Your task to perform on an android device: Check the weather Image 0: 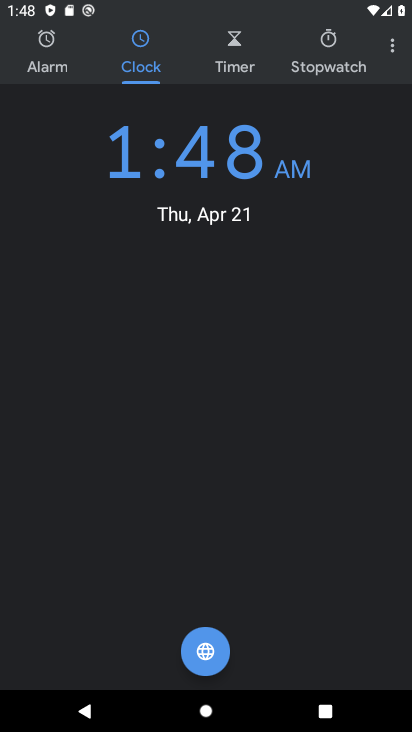
Step 0: press home button
Your task to perform on an android device: Check the weather Image 1: 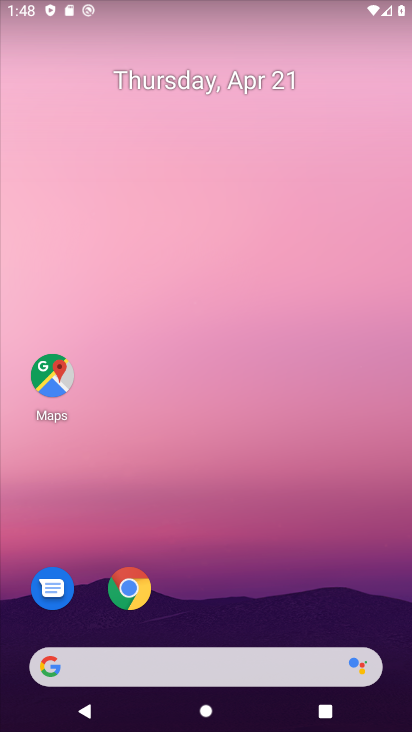
Step 1: drag from (228, 581) to (330, 54)
Your task to perform on an android device: Check the weather Image 2: 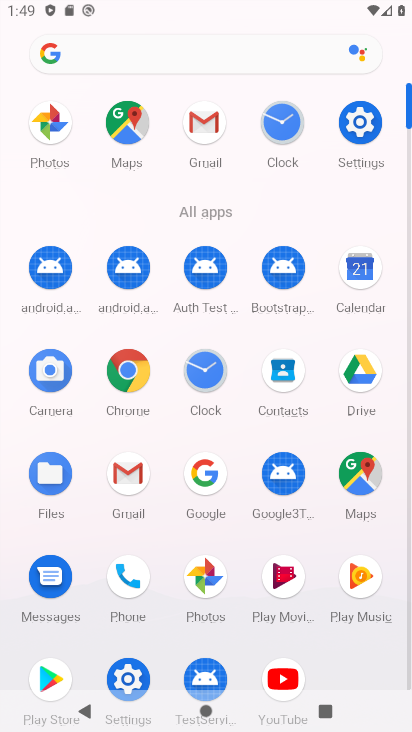
Step 2: click (135, 34)
Your task to perform on an android device: Check the weather Image 3: 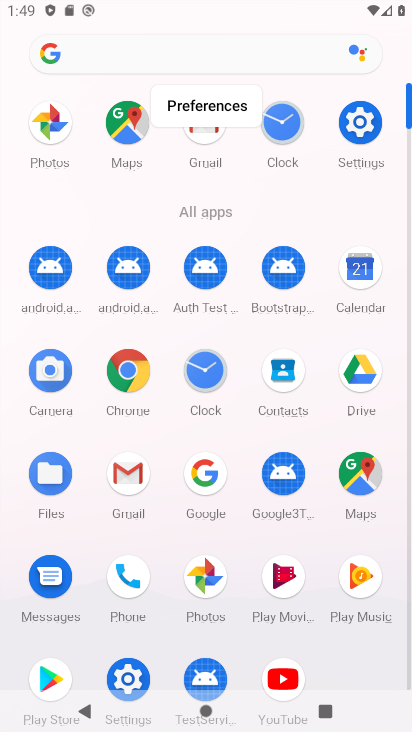
Step 3: click (136, 50)
Your task to perform on an android device: Check the weather Image 4: 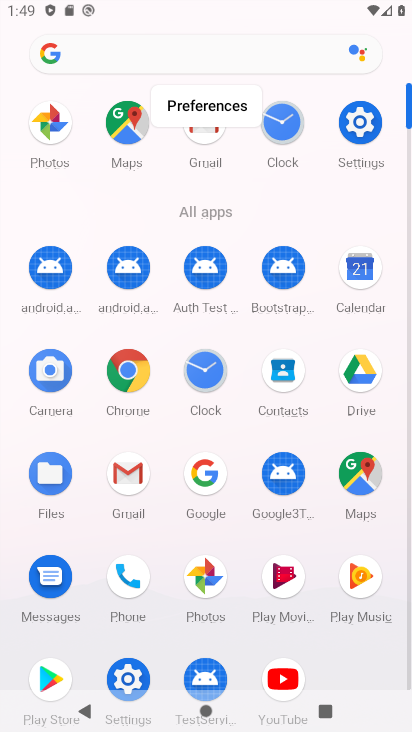
Step 4: click (74, 61)
Your task to perform on an android device: Check the weather Image 5: 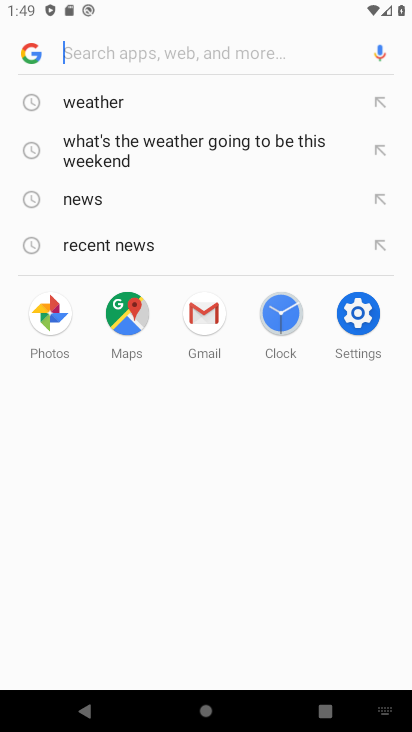
Step 5: type "weather"
Your task to perform on an android device: Check the weather Image 6: 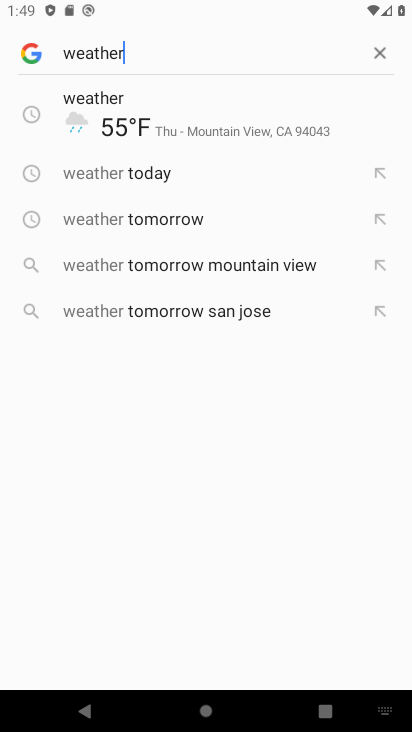
Step 6: click (88, 122)
Your task to perform on an android device: Check the weather Image 7: 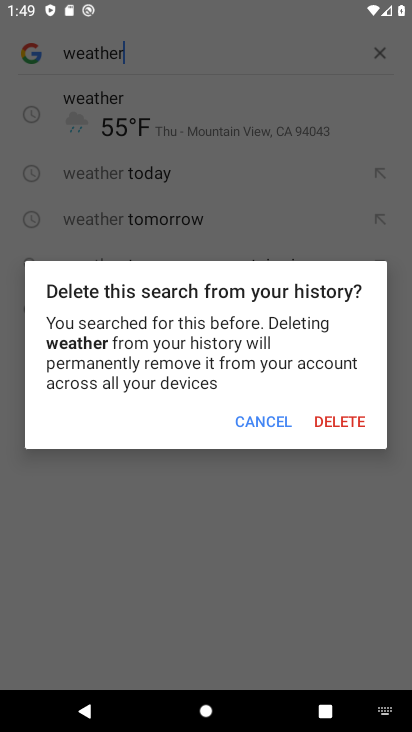
Step 7: click (263, 421)
Your task to perform on an android device: Check the weather Image 8: 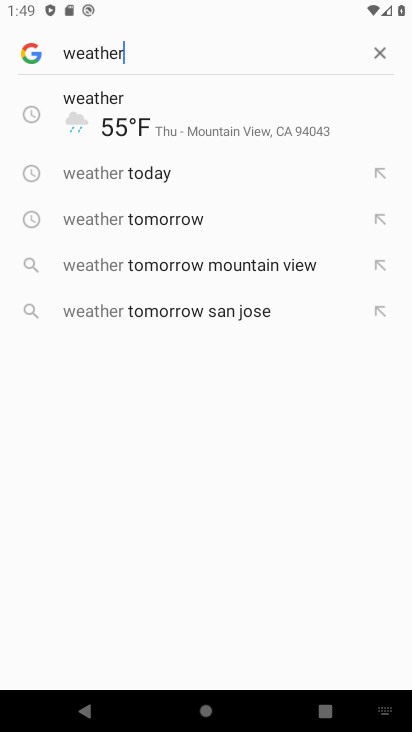
Step 8: click (204, 132)
Your task to perform on an android device: Check the weather Image 9: 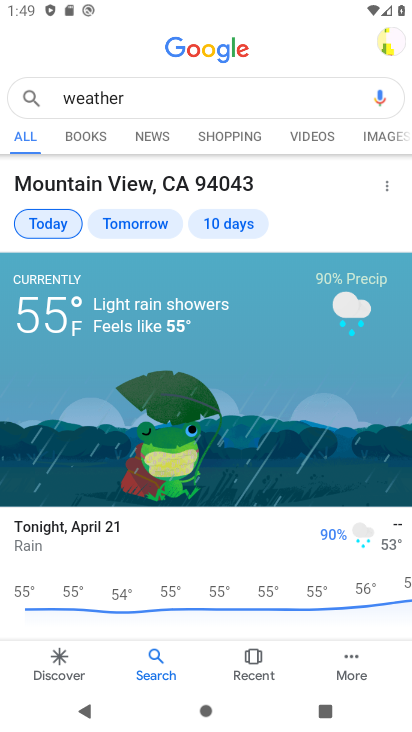
Step 9: task complete